Your task to perform on an android device: refresh tabs in the chrome app Image 0: 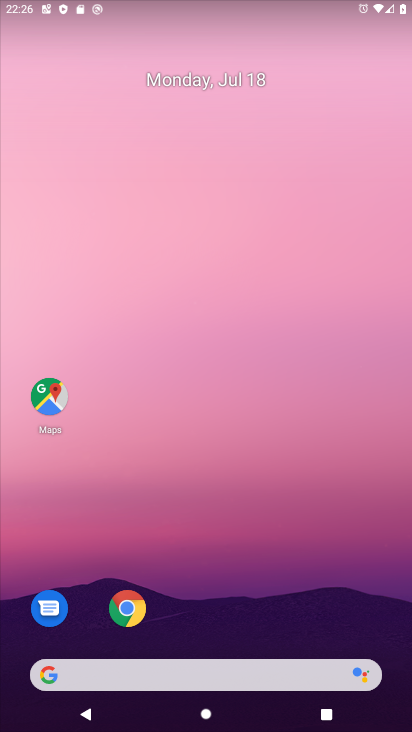
Step 0: click (125, 624)
Your task to perform on an android device: refresh tabs in the chrome app Image 1: 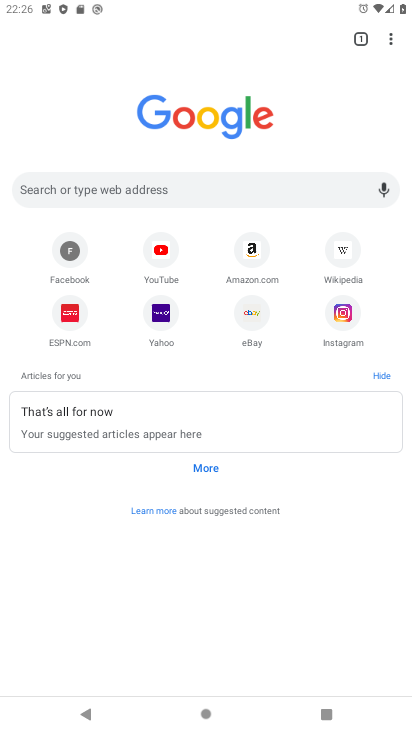
Step 1: click (387, 41)
Your task to perform on an android device: refresh tabs in the chrome app Image 2: 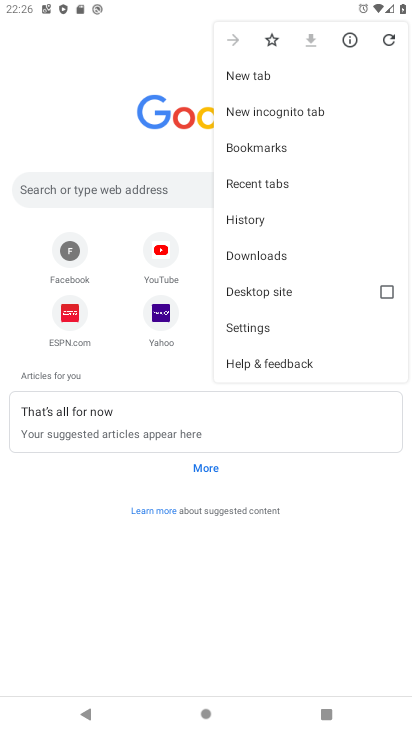
Step 2: click (387, 39)
Your task to perform on an android device: refresh tabs in the chrome app Image 3: 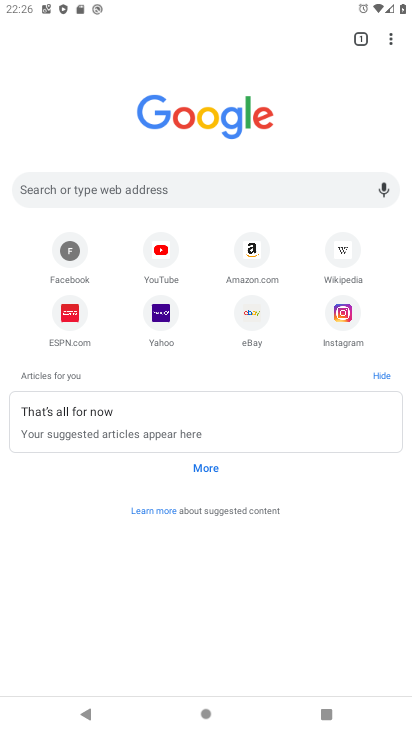
Step 3: task complete